Your task to perform on an android device: Go to notification settings Image 0: 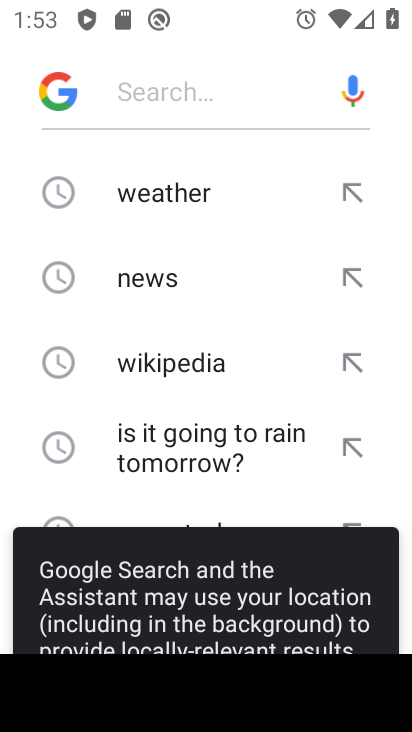
Step 0: press back button
Your task to perform on an android device: Go to notification settings Image 1: 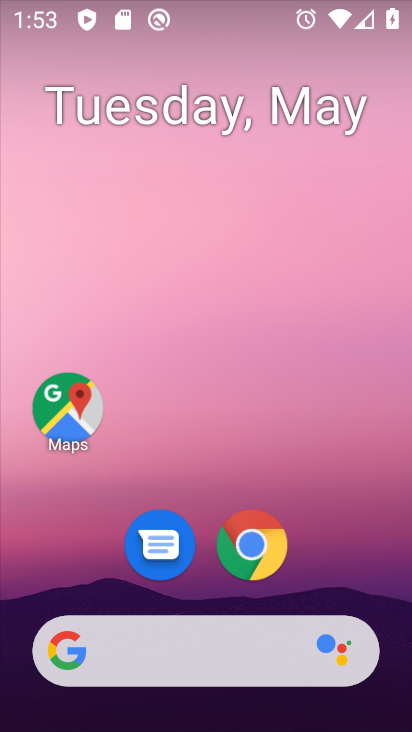
Step 1: drag from (364, 556) to (244, 23)
Your task to perform on an android device: Go to notification settings Image 2: 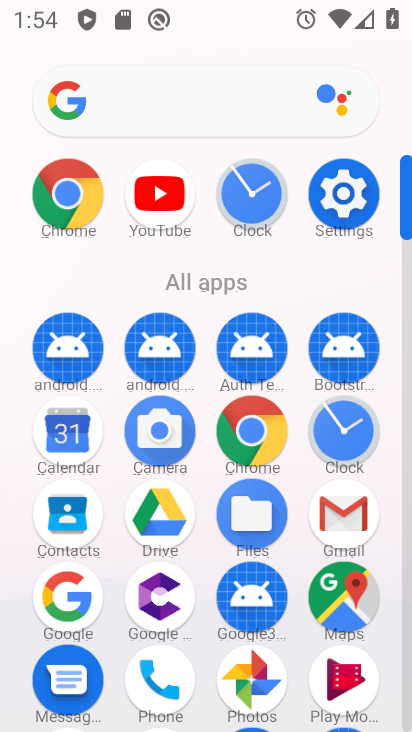
Step 2: click (342, 187)
Your task to perform on an android device: Go to notification settings Image 3: 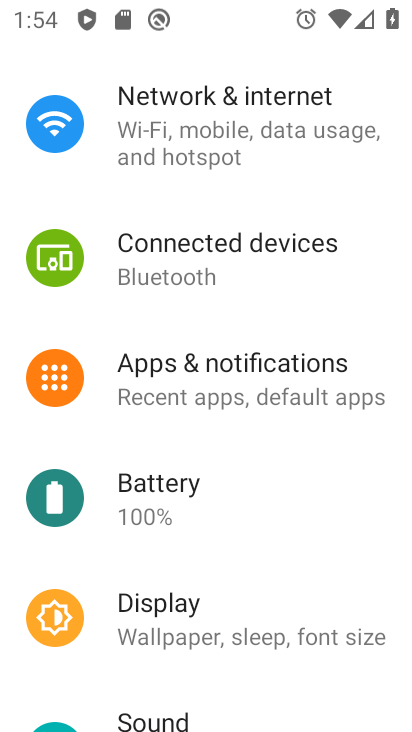
Step 3: click (240, 363)
Your task to perform on an android device: Go to notification settings Image 4: 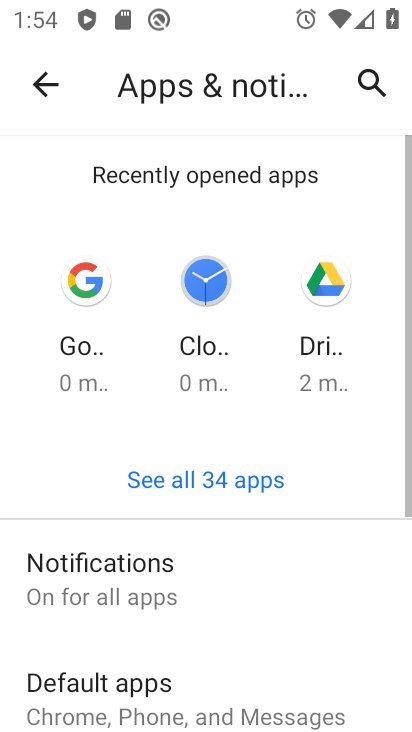
Step 4: drag from (295, 630) to (295, 165)
Your task to perform on an android device: Go to notification settings Image 5: 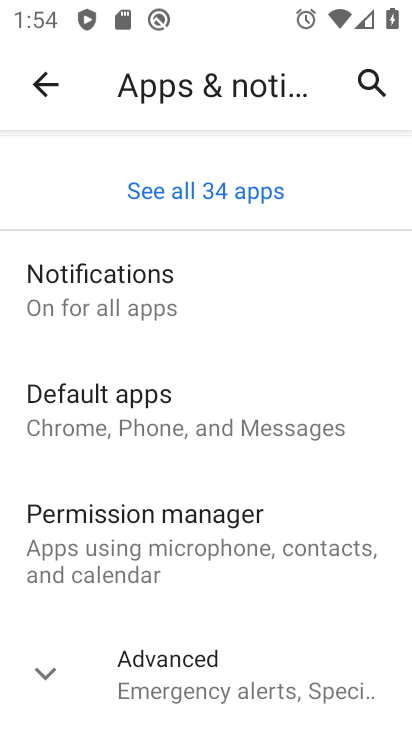
Step 5: click (22, 667)
Your task to perform on an android device: Go to notification settings Image 6: 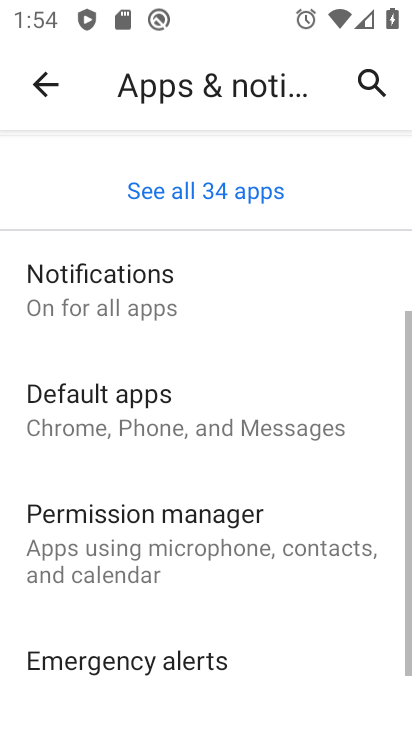
Step 6: drag from (297, 643) to (288, 277)
Your task to perform on an android device: Go to notification settings Image 7: 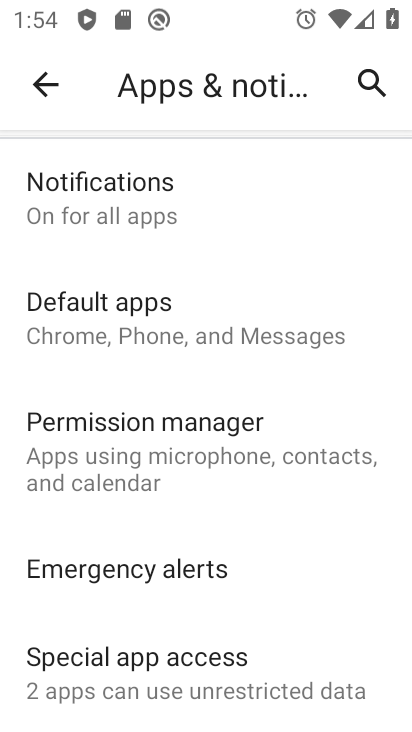
Step 7: click (92, 203)
Your task to perform on an android device: Go to notification settings Image 8: 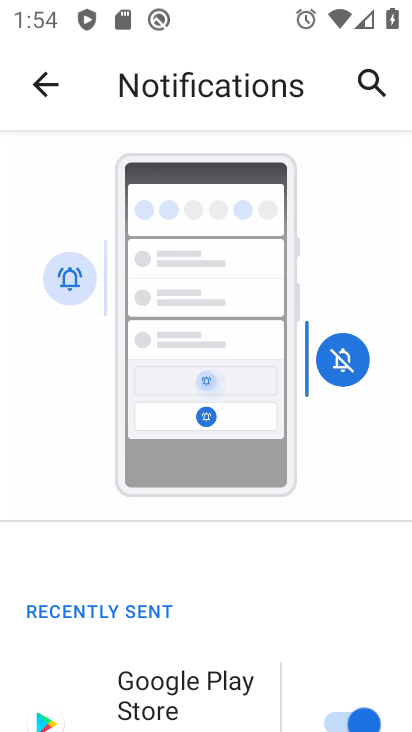
Step 8: drag from (249, 579) to (231, 178)
Your task to perform on an android device: Go to notification settings Image 9: 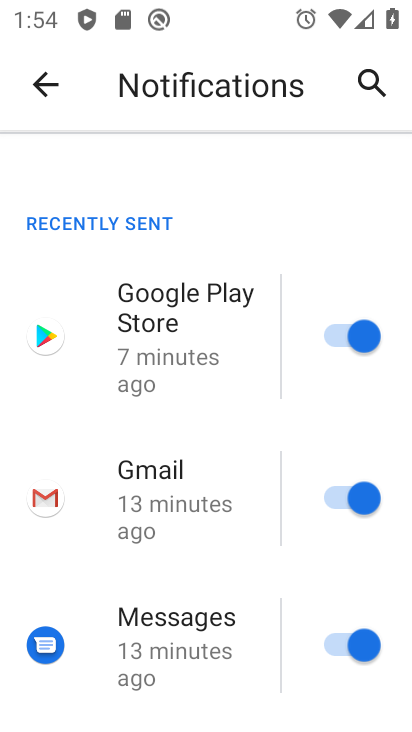
Step 9: drag from (235, 602) to (216, 149)
Your task to perform on an android device: Go to notification settings Image 10: 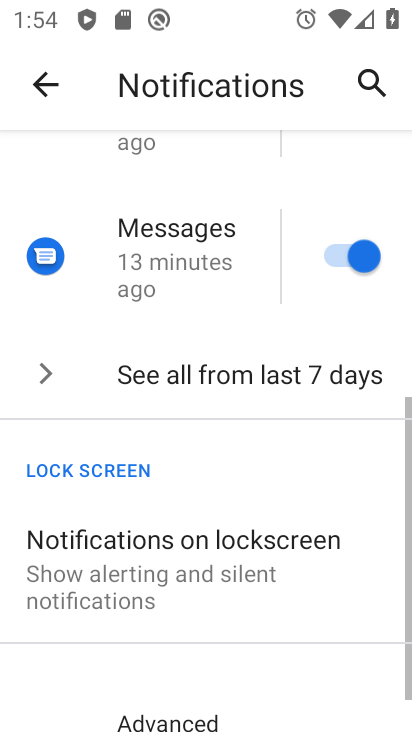
Step 10: drag from (212, 630) to (205, 185)
Your task to perform on an android device: Go to notification settings Image 11: 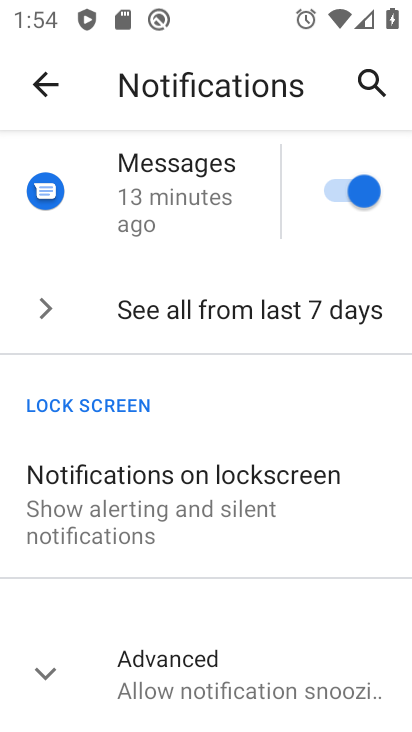
Step 11: drag from (199, 534) to (189, 175)
Your task to perform on an android device: Go to notification settings Image 12: 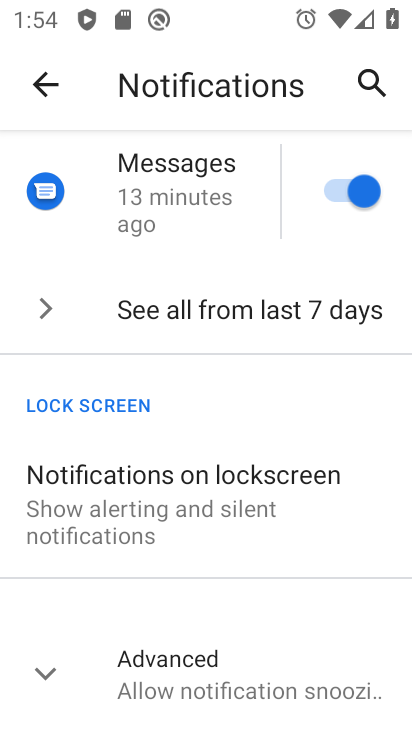
Step 12: click (29, 686)
Your task to perform on an android device: Go to notification settings Image 13: 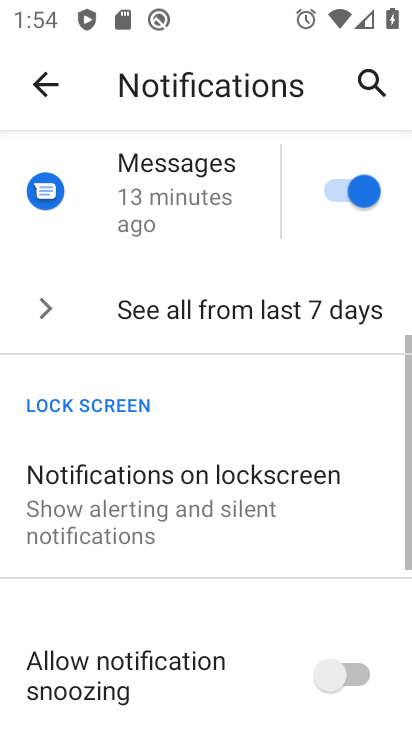
Step 13: task complete